Your task to perform on an android device: set default search engine in the chrome app Image 0: 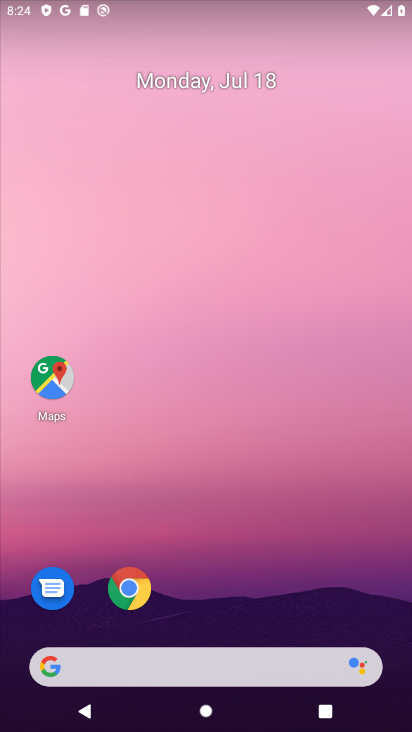
Step 0: drag from (359, 619) to (289, 61)
Your task to perform on an android device: set default search engine in the chrome app Image 1: 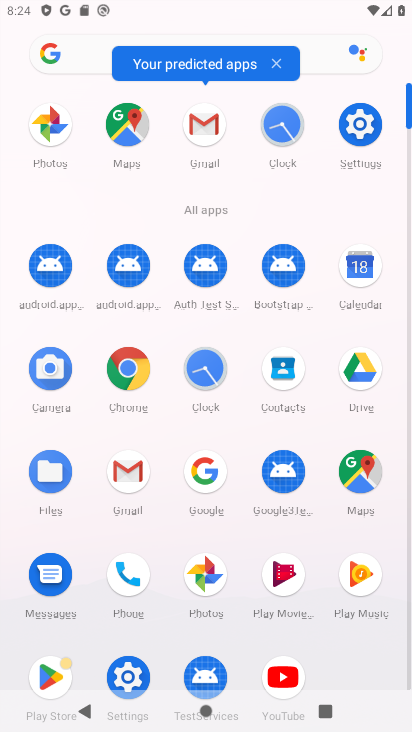
Step 1: click (131, 377)
Your task to perform on an android device: set default search engine in the chrome app Image 2: 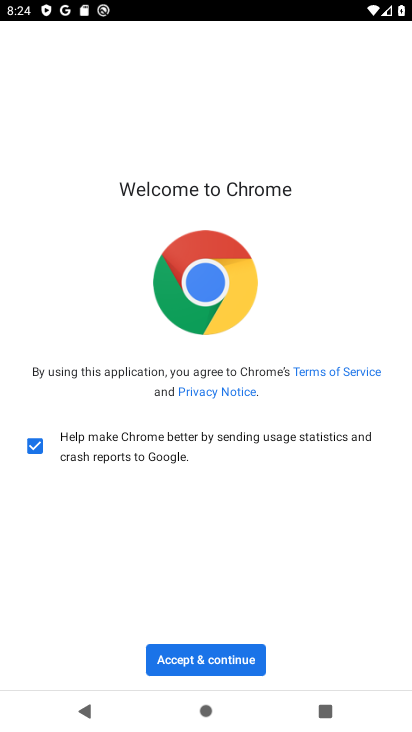
Step 2: click (234, 660)
Your task to perform on an android device: set default search engine in the chrome app Image 3: 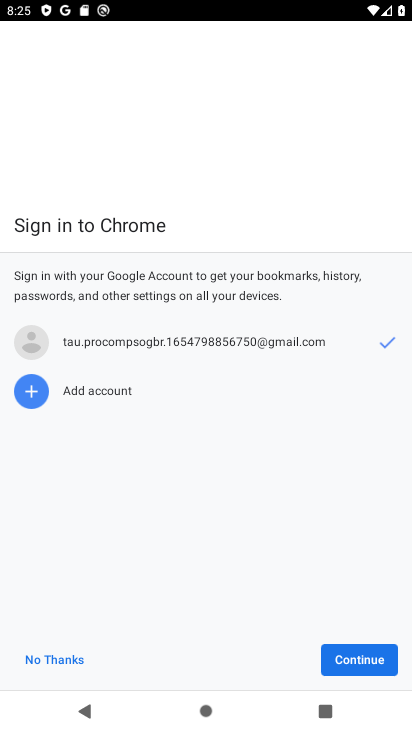
Step 3: click (376, 661)
Your task to perform on an android device: set default search engine in the chrome app Image 4: 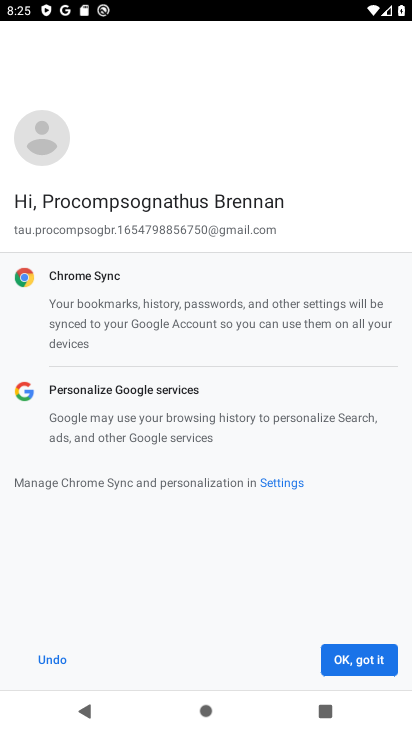
Step 4: click (376, 661)
Your task to perform on an android device: set default search engine in the chrome app Image 5: 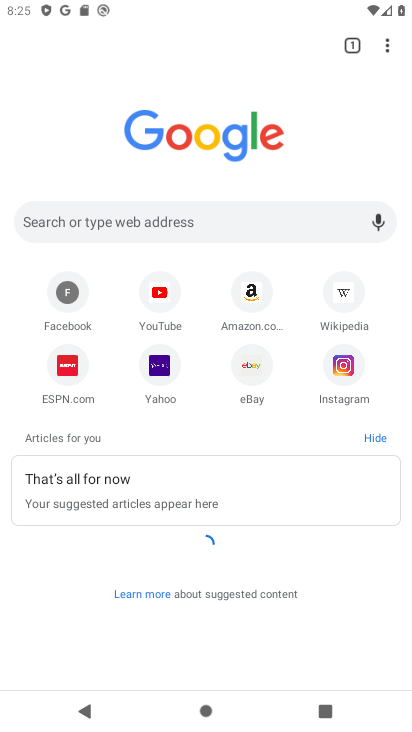
Step 5: click (392, 42)
Your task to perform on an android device: set default search engine in the chrome app Image 6: 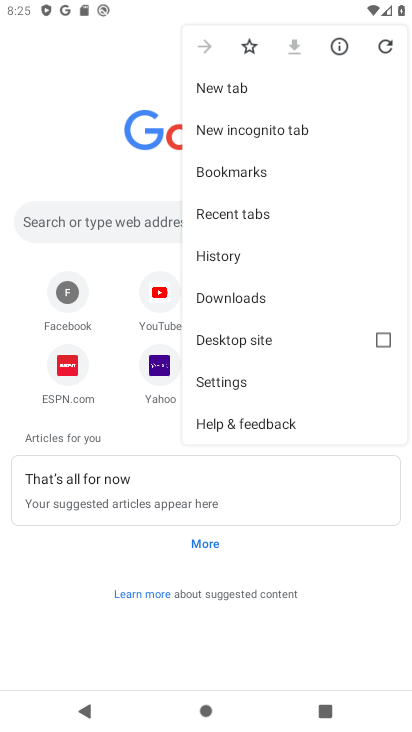
Step 6: click (226, 388)
Your task to perform on an android device: set default search engine in the chrome app Image 7: 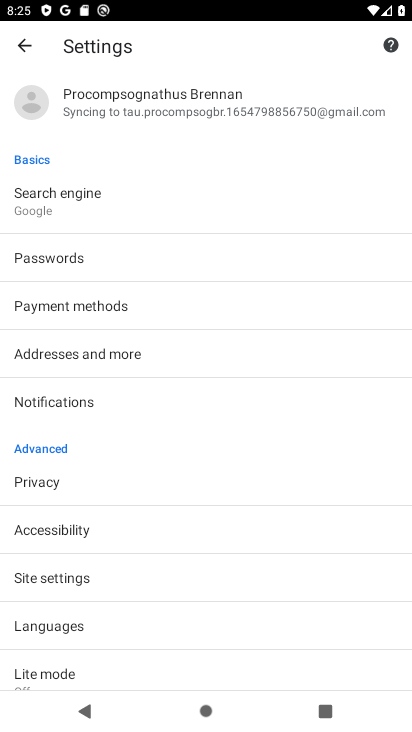
Step 7: click (153, 188)
Your task to perform on an android device: set default search engine in the chrome app Image 8: 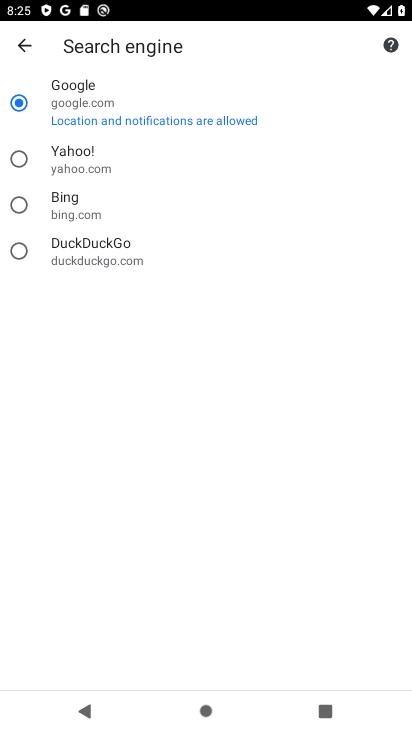
Step 8: click (120, 166)
Your task to perform on an android device: set default search engine in the chrome app Image 9: 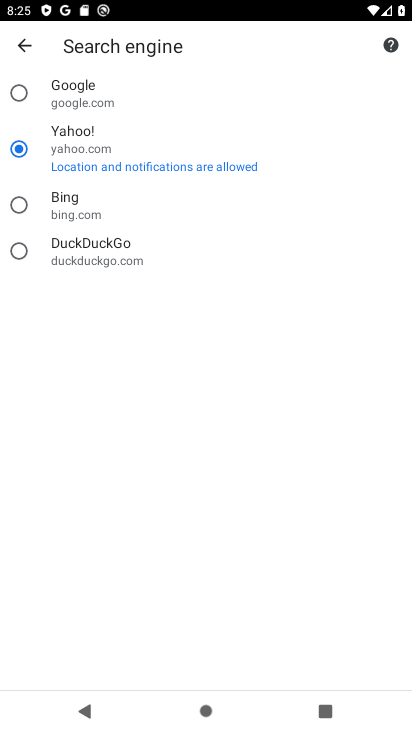
Step 9: task complete